Your task to perform on an android device: change your default location settings in chrome Image 0: 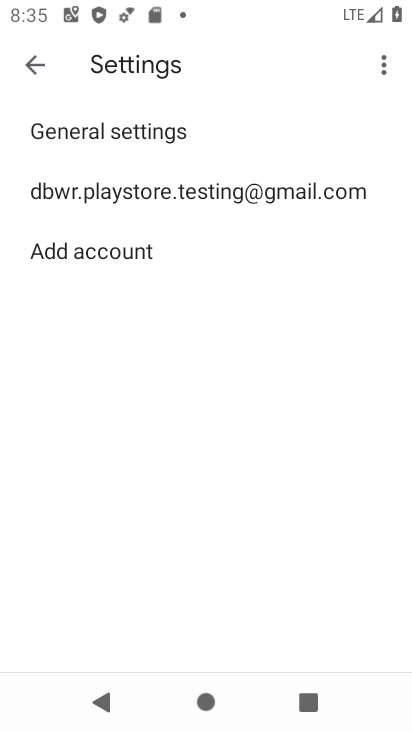
Step 0: press home button
Your task to perform on an android device: change your default location settings in chrome Image 1: 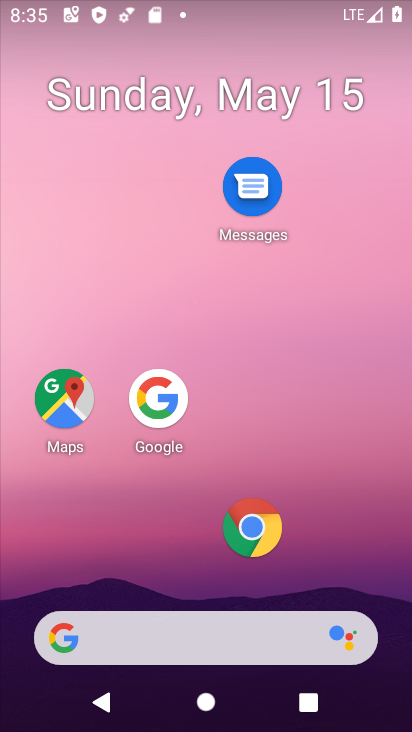
Step 1: drag from (175, 638) to (366, 39)
Your task to perform on an android device: change your default location settings in chrome Image 2: 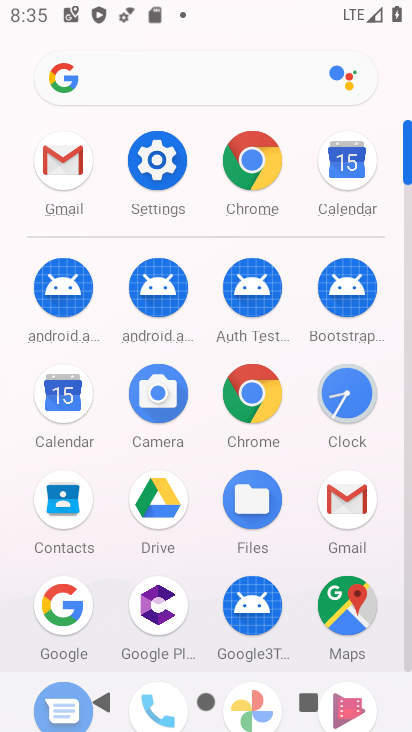
Step 2: click (265, 160)
Your task to perform on an android device: change your default location settings in chrome Image 3: 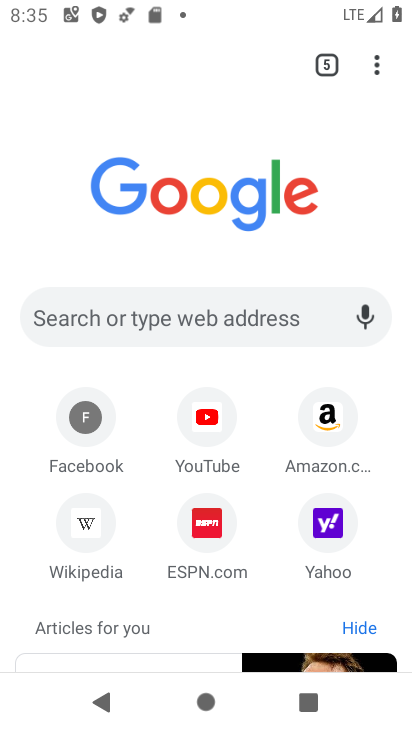
Step 3: drag from (373, 72) to (222, 549)
Your task to perform on an android device: change your default location settings in chrome Image 4: 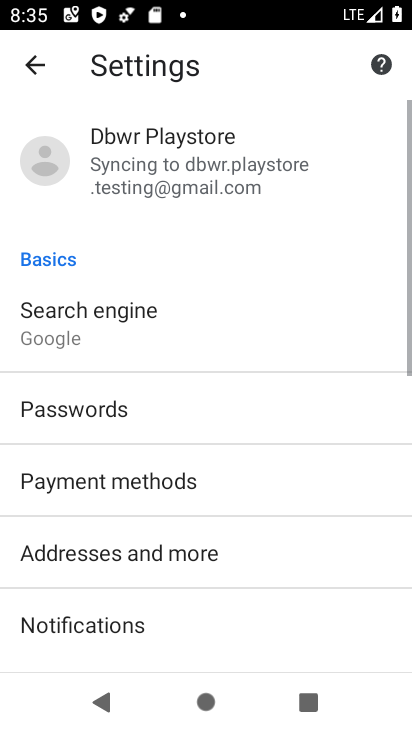
Step 4: drag from (210, 526) to (347, 80)
Your task to perform on an android device: change your default location settings in chrome Image 5: 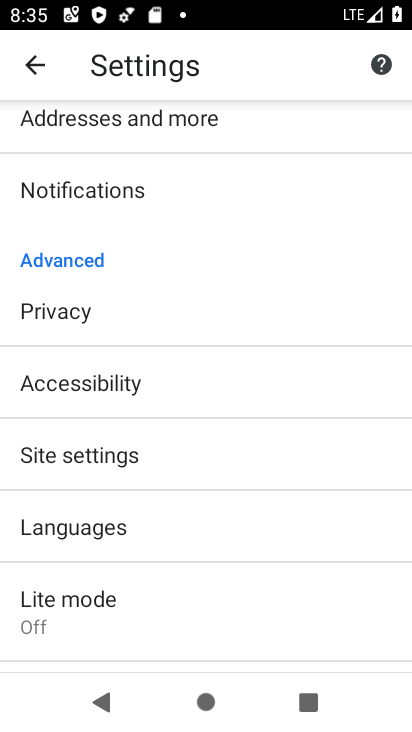
Step 5: click (90, 466)
Your task to perform on an android device: change your default location settings in chrome Image 6: 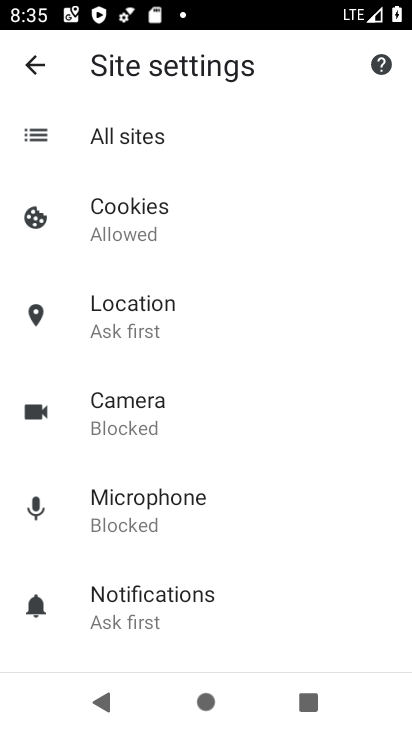
Step 6: click (145, 323)
Your task to perform on an android device: change your default location settings in chrome Image 7: 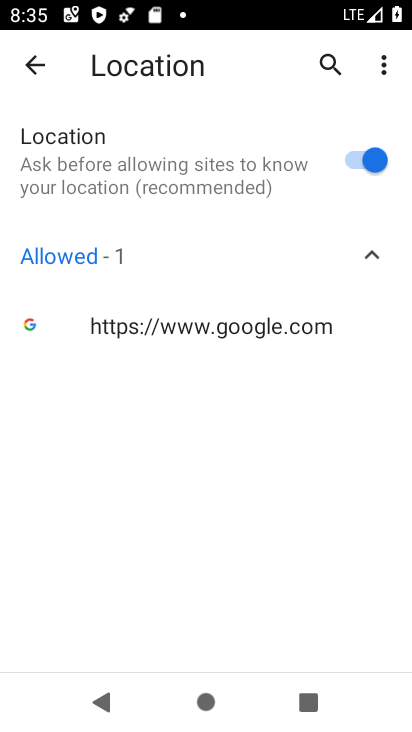
Step 7: click (359, 152)
Your task to perform on an android device: change your default location settings in chrome Image 8: 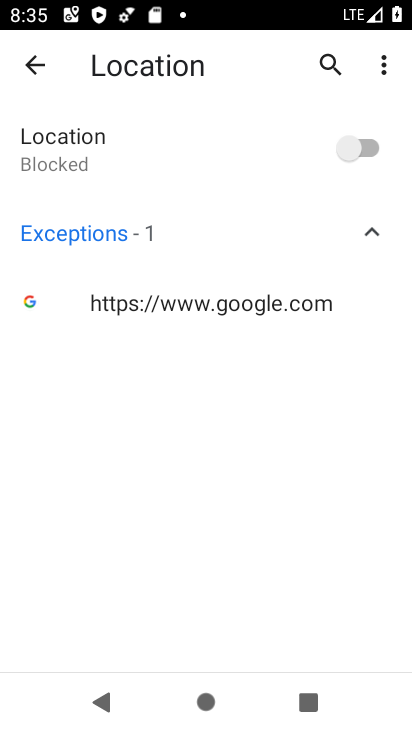
Step 8: task complete